Your task to perform on an android device: find photos in the google photos app Image 0: 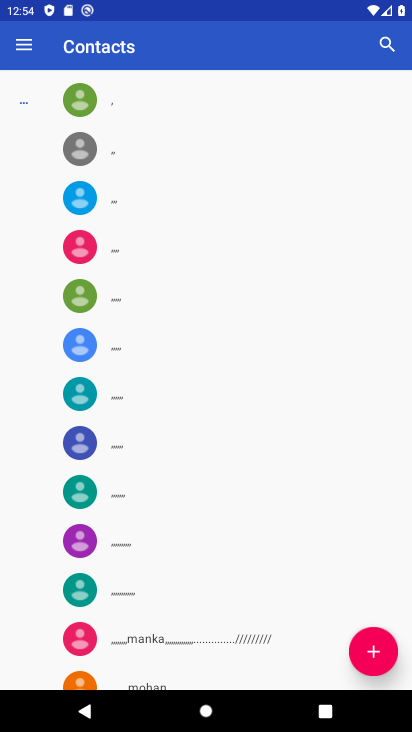
Step 0: press home button
Your task to perform on an android device: find photos in the google photos app Image 1: 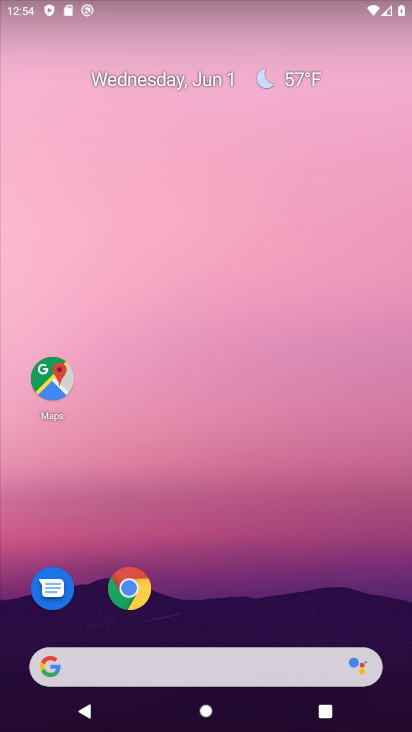
Step 1: drag from (290, 569) to (237, 191)
Your task to perform on an android device: find photos in the google photos app Image 2: 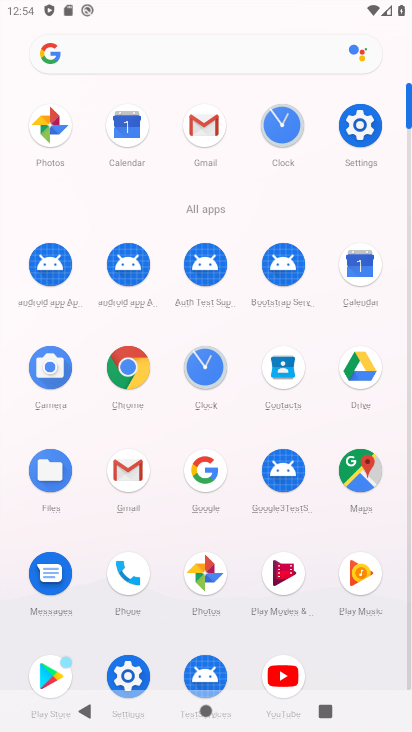
Step 2: click (181, 580)
Your task to perform on an android device: find photos in the google photos app Image 3: 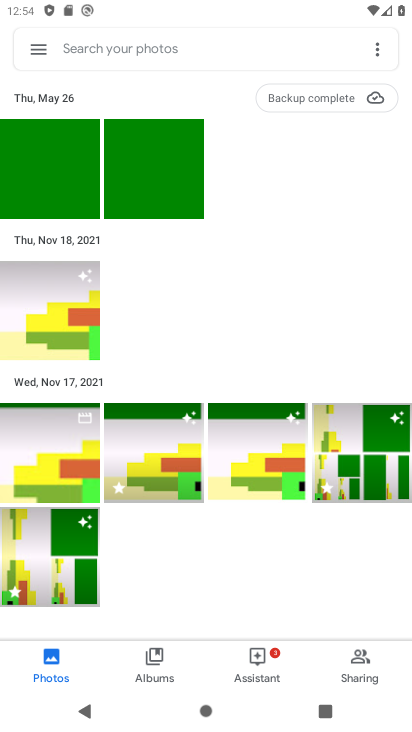
Step 3: task complete